Your task to perform on an android device: Open Wikipedia Image 0: 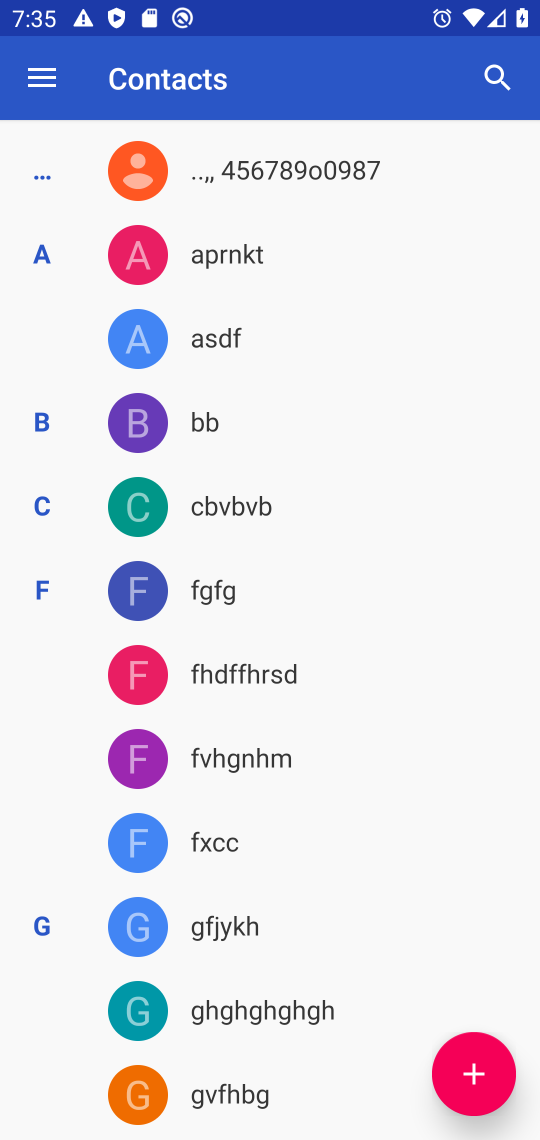
Step 0: press home button
Your task to perform on an android device: Open Wikipedia Image 1: 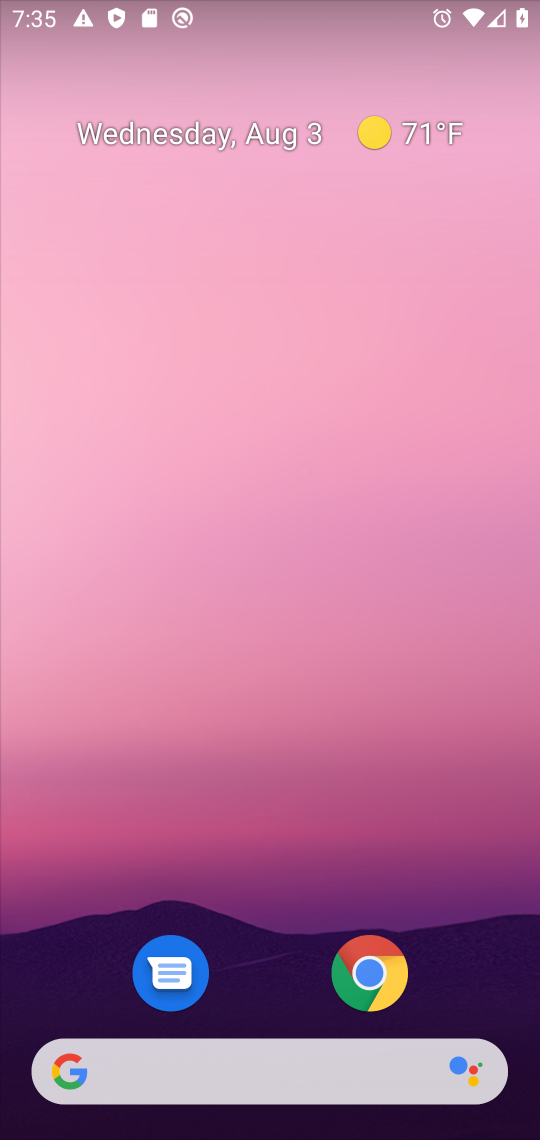
Step 1: click (378, 987)
Your task to perform on an android device: Open Wikipedia Image 2: 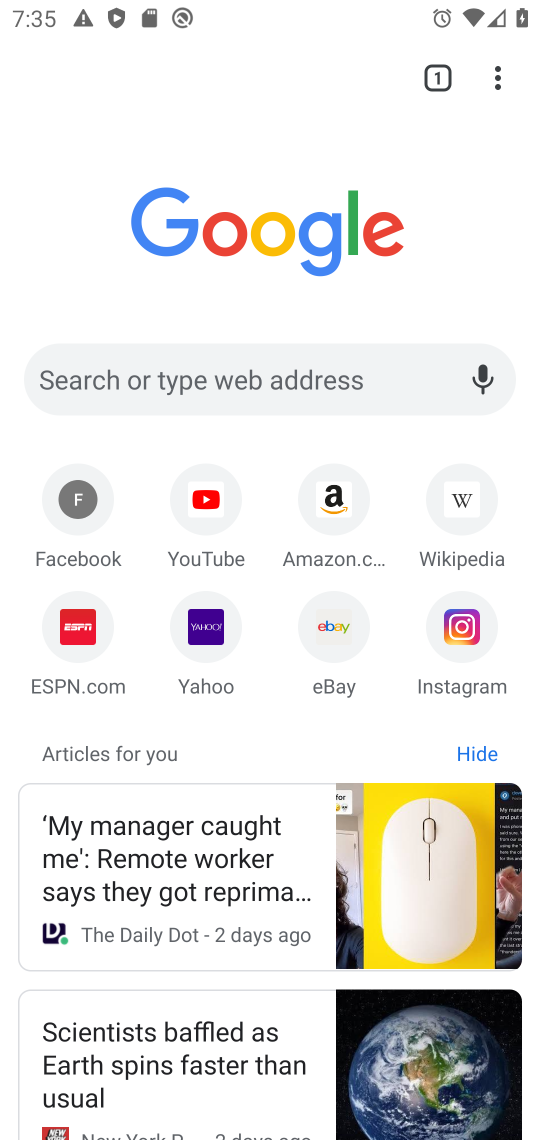
Step 2: click (478, 491)
Your task to perform on an android device: Open Wikipedia Image 3: 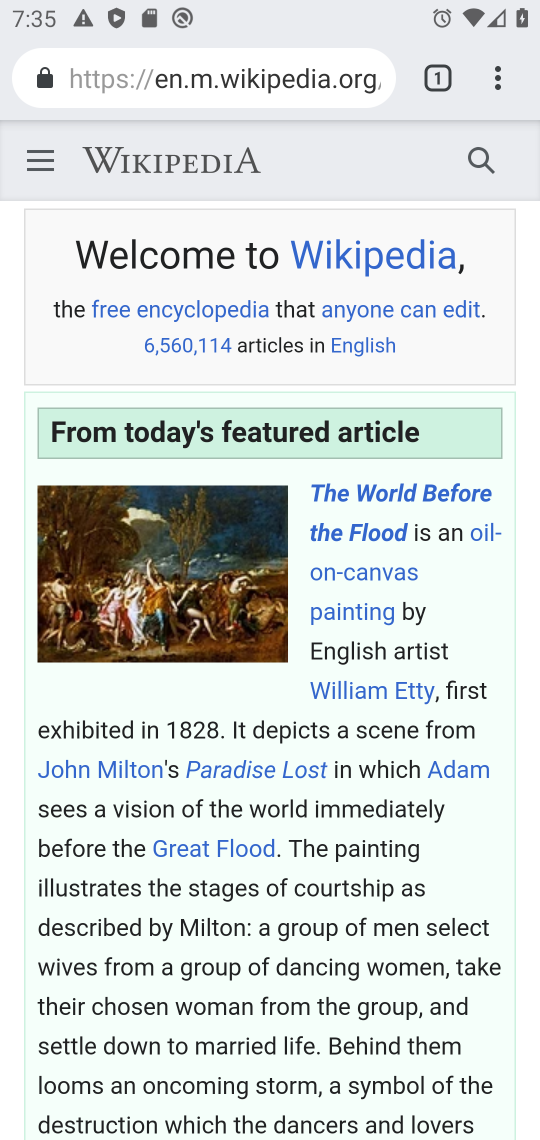
Step 3: task complete